Your task to perform on an android device: Go to Maps Image 0: 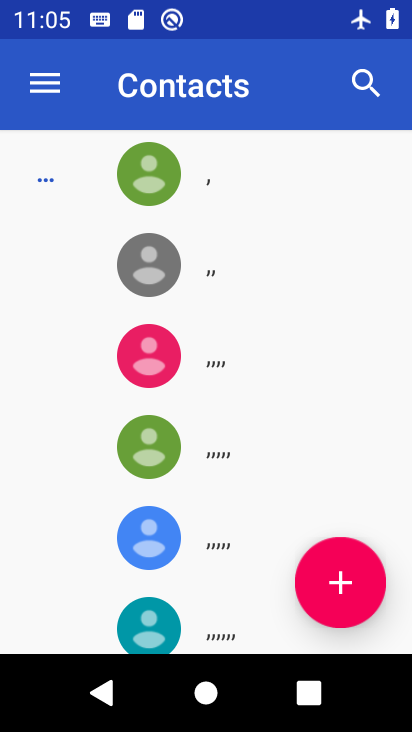
Step 0: press home button
Your task to perform on an android device: Go to Maps Image 1: 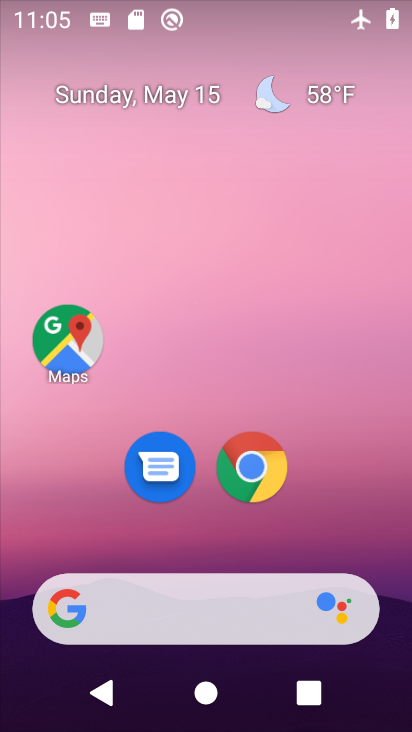
Step 1: click (65, 332)
Your task to perform on an android device: Go to Maps Image 2: 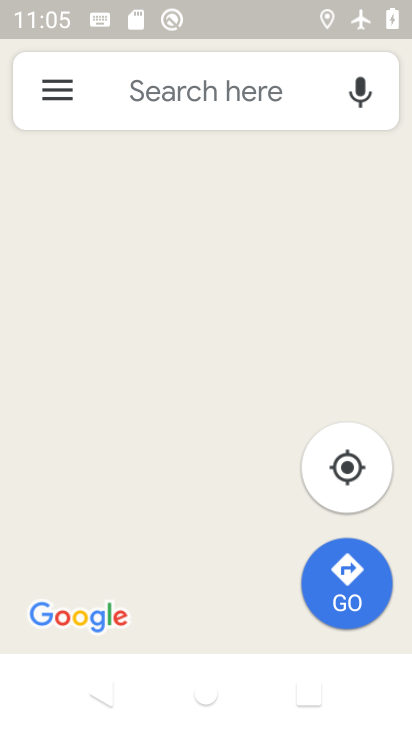
Step 2: task complete